Your task to perform on an android device: Open the Play Movies app and select the watchlist tab. Image 0: 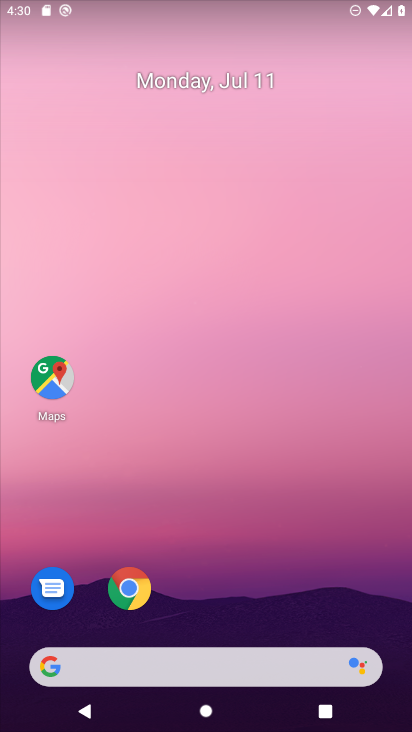
Step 0: press home button
Your task to perform on an android device: Open the Play Movies app and select the watchlist tab. Image 1: 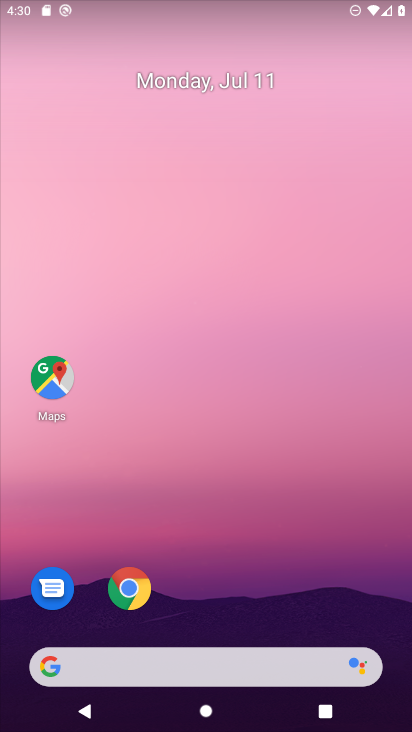
Step 1: drag from (257, 626) to (239, 20)
Your task to perform on an android device: Open the Play Movies app and select the watchlist tab. Image 2: 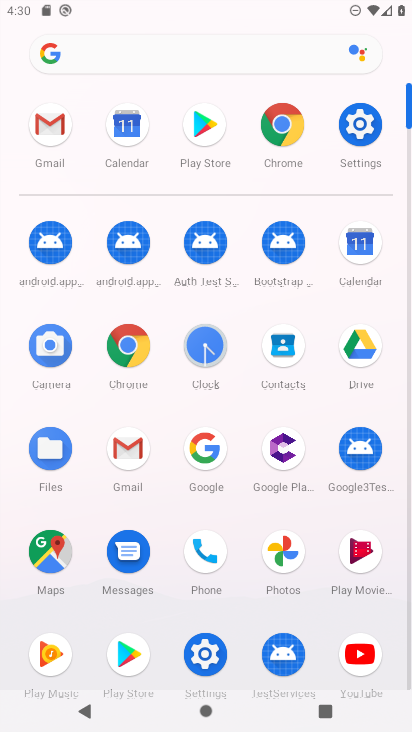
Step 2: click (365, 546)
Your task to perform on an android device: Open the Play Movies app and select the watchlist tab. Image 3: 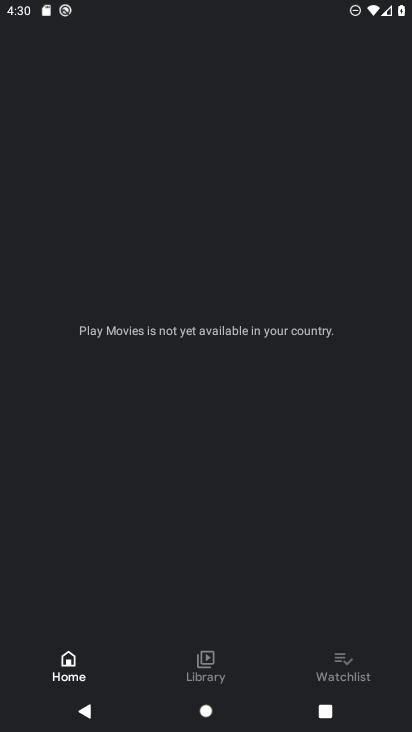
Step 3: click (342, 661)
Your task to perform on an android device: Open the Play Movies app and select the watchlist tab. Image 4: 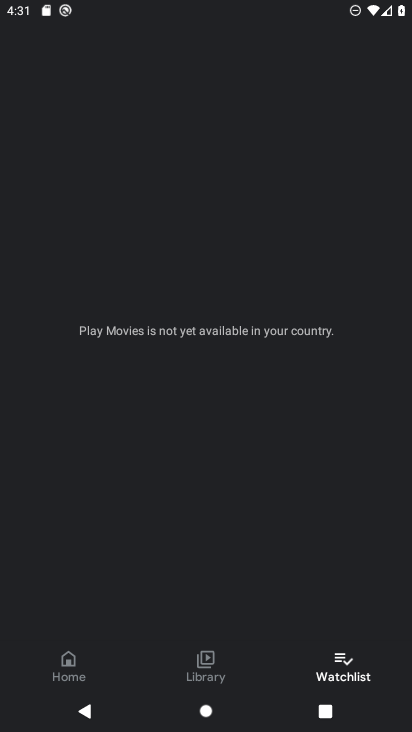
Step 4: task complete